Your task to perform on an android device: change the clock style Image 0: 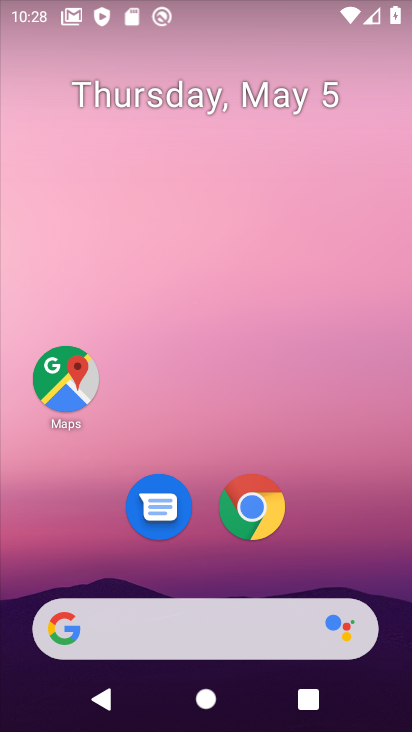
Step 0: drag from (358, 565) to (376, 32)
Your task to perform on an android device: change the clock style Image 1: 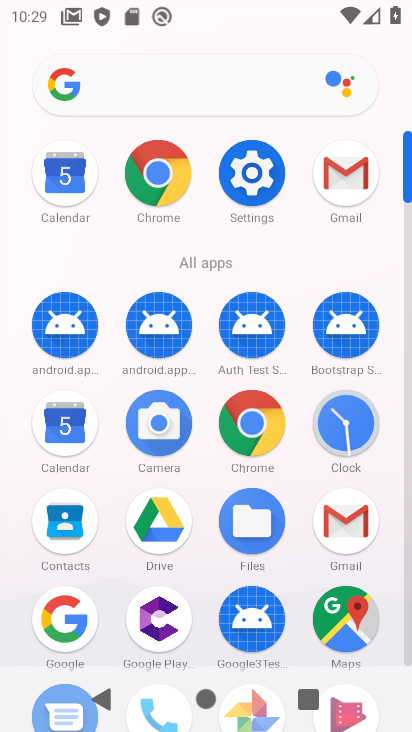
Step 1: click (352, 434)
Your task to perform on an android device: change the clock style Image 2: 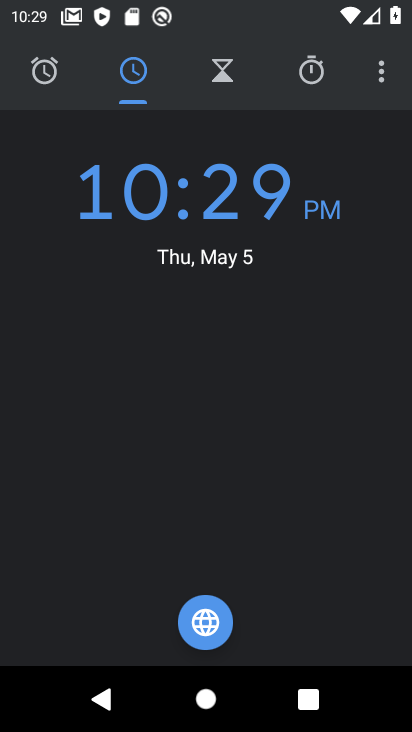
Step 2: click (387, 80)
Your task to perform on an android device: change the clock style Image 3: 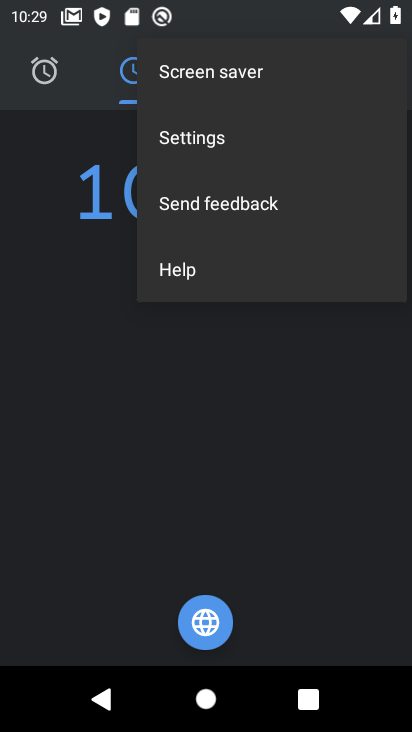
Step 3: click (191, 150)
Your task to perform on an android device: change the clock style Image 4: 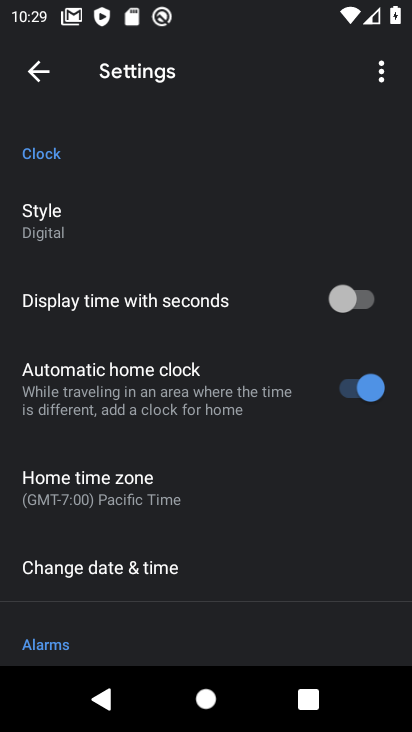
Step 4: click (35, 234)
Your task to perform on an android device: change the clock style Image 5: 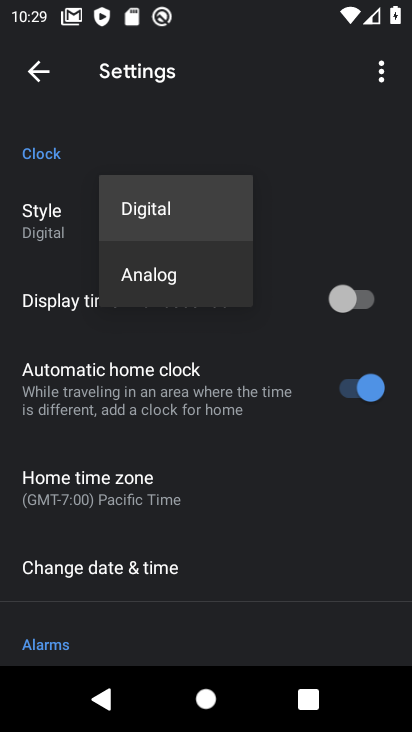
Step 5: click (125, 282)
Your task to perform on an android device: change the clock style Image 6: 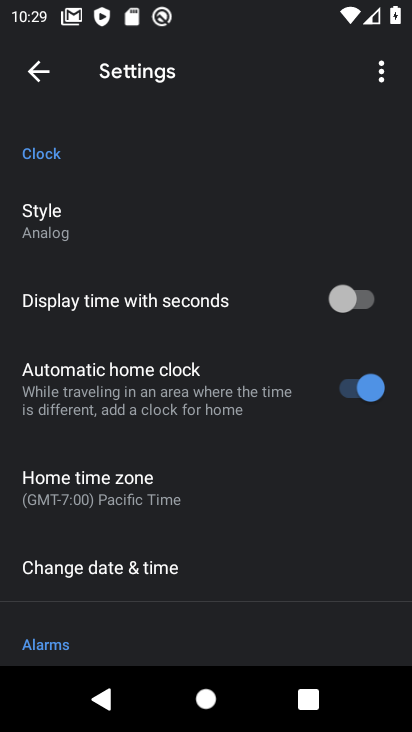
Step 6: task complete